Your task to perform on an android device: check out phone information Image 0: 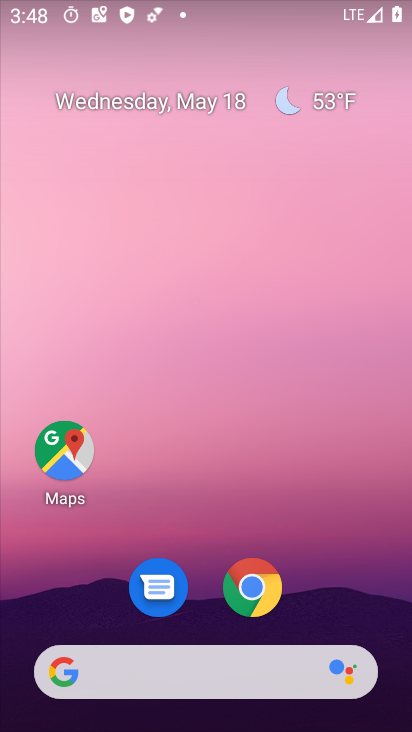
Step 0: drag from (210, 607) to (224, 102)
Your task to perform on an android device: check out phone information Image 1: 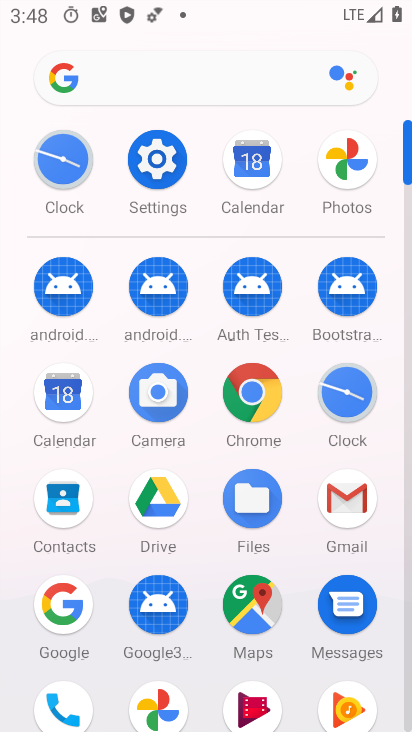
Step 1: click (168, 163)
Your task to perform on an android device: check out phone information Image 2: 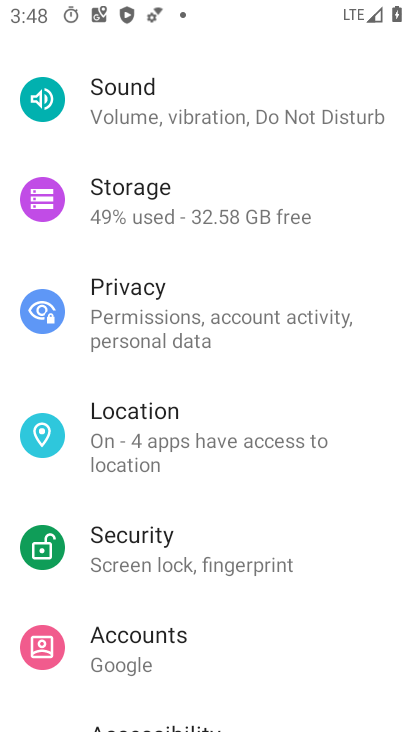
Step 2: drag from (198, 593) to (227, 219)
Your task to perform on an android device: check out phone information Image 3: 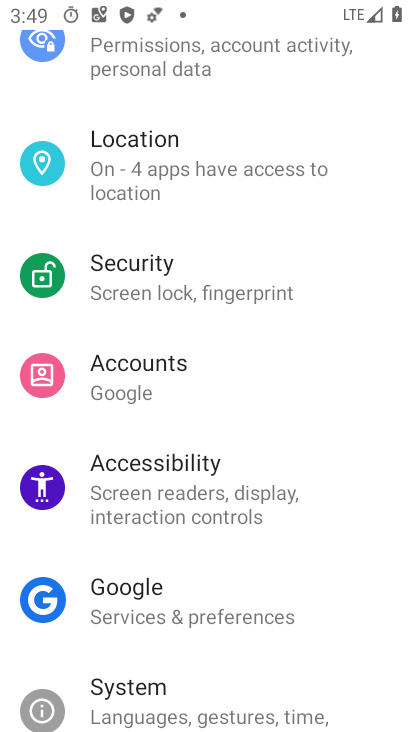
Step 3: drag from (193, 576) to (212, 156)
Your task to perform on an android device: check out phone information Image 4: 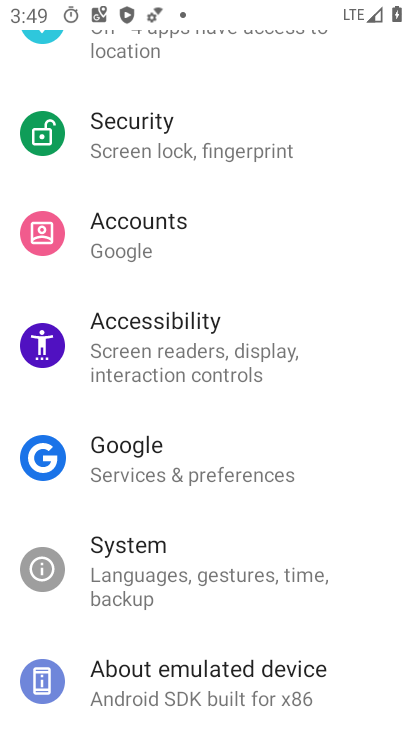
Step 4: click (178, 687)
Your task to perform on an android device: check out phone information Image 5: 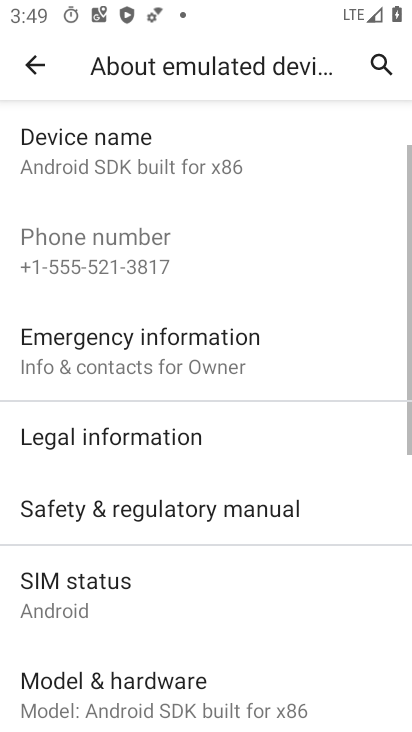
Step 5: task complete